Your task to perform on an android device: Open the web browser Image 0: 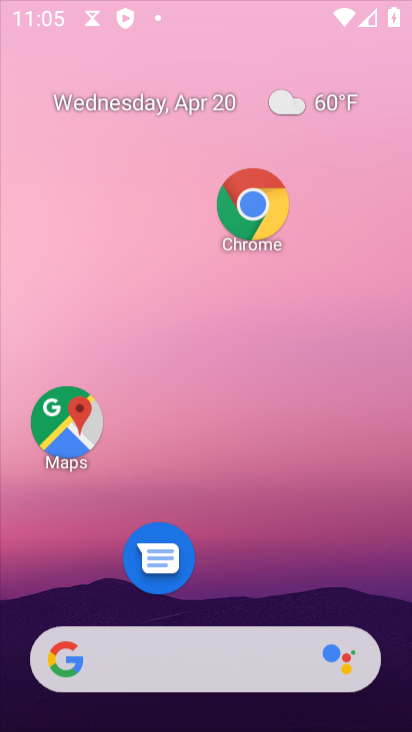
Step 0: drag from (344, 378) to (337, 132)
Your task to perform on an android device: Open the web browser Image 1: 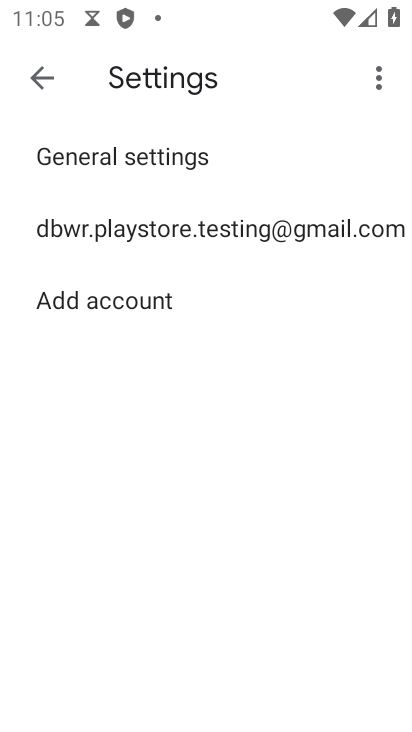
Step 1: press back button
Your task to perform on an android device: Open the web browser Image 2: 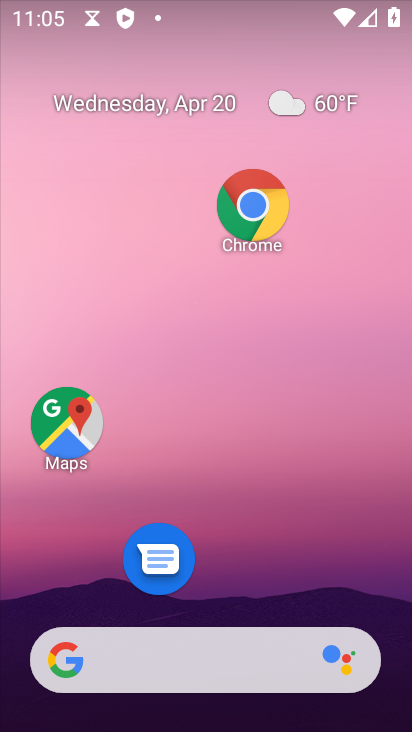
Step 2: drag from (326, 601) to (342, 44)
Your task to perform on an android device: Open the web browser Image 3: 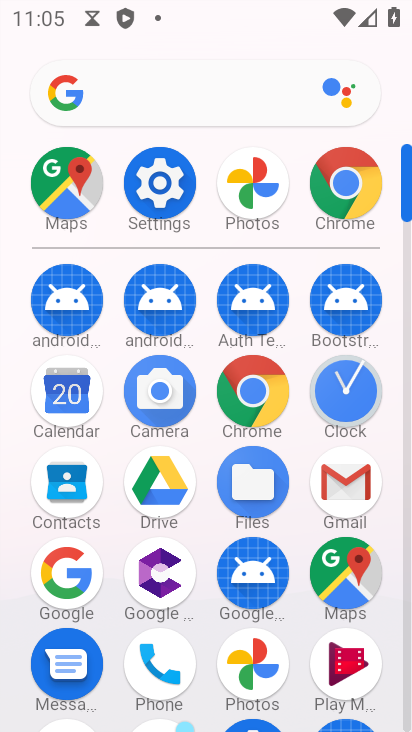
Step 3: click (276, 391)
Your task to perform on an android device: Open the web browser Image 4: 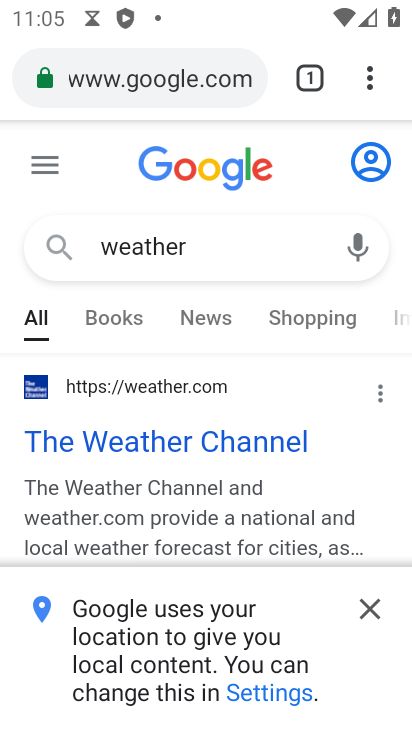
Step 4: click (377, 600)
Your task to perform on an android device: Open the web browser Image 5: 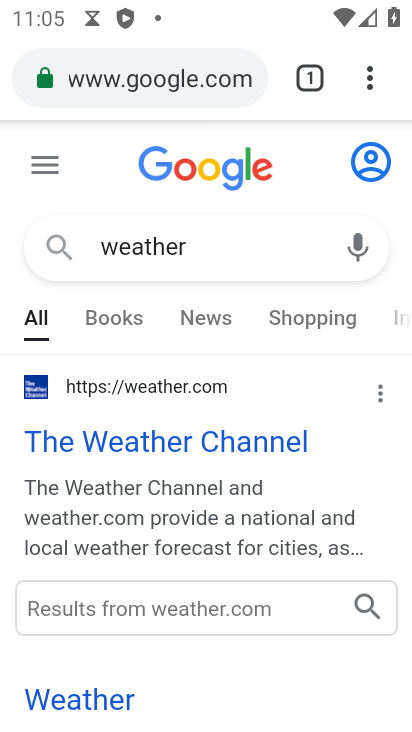
Step 5: task complete